Your task to perform on an android device: Open Google Maps Image 0: 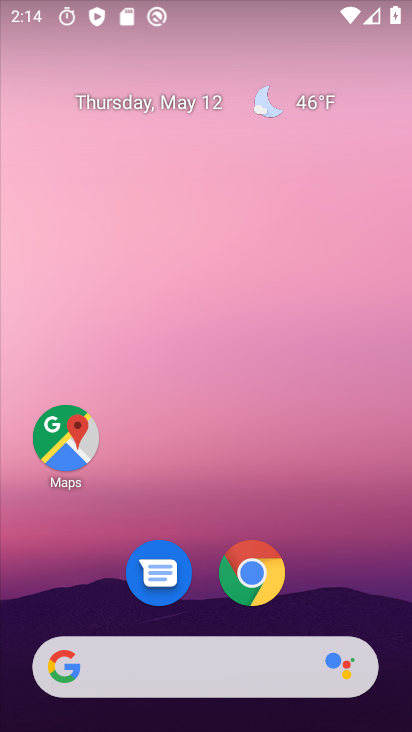
Step 0: click (55, 430)
Your task to perform on an android device: Open Google Maps Image 1: 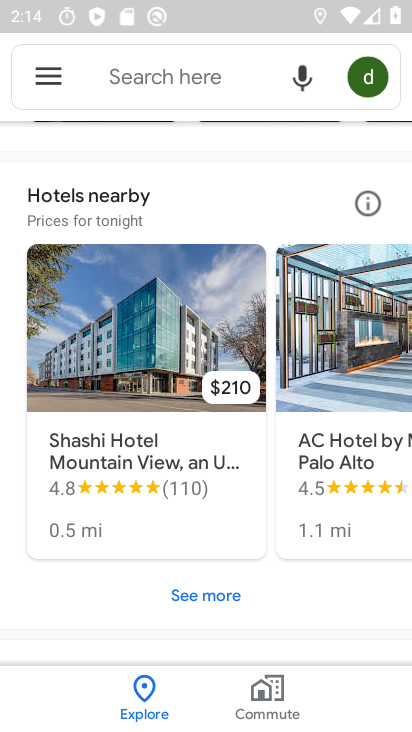
Step 1: task complete